Your task to perform on an android device: change your default location settings in chrome Image 0: 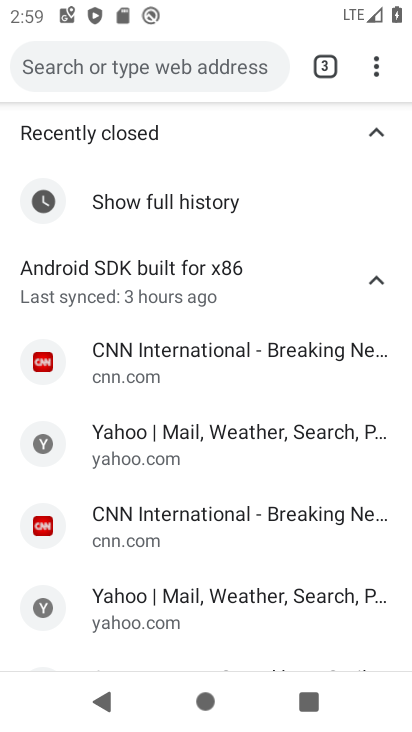
Step 0: click (375, 61)
Your task to perform on an android device: change your default location settings in chrome Image 1: 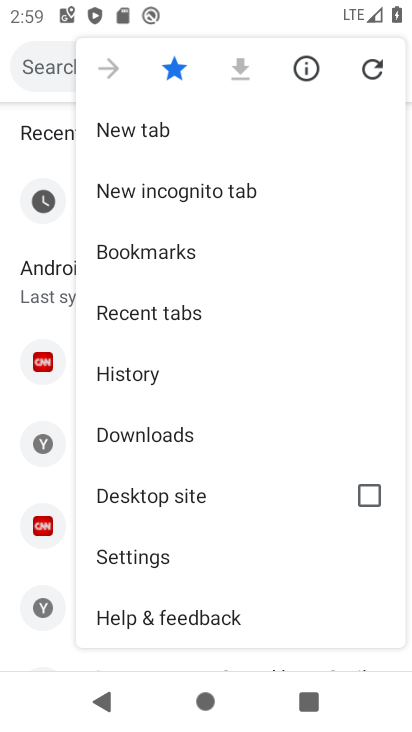
Step 1: click (178, 556)
Your task to perform on an android device: change your default location settings in chrome Image 2: 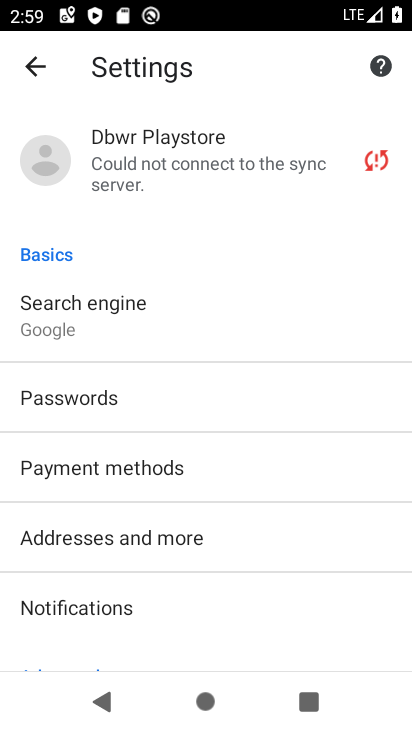
Step 2: drag from (197, 519) to (218, 237)
Your task to perform on an android device: change your default location settings in chrome Image 3: 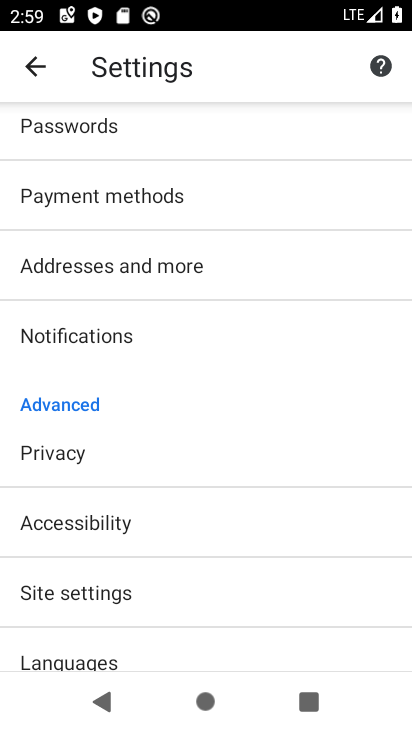
Step 3: click (136, 584)
Your task to perform on an android device: change your default location settings in chrome Image 4: 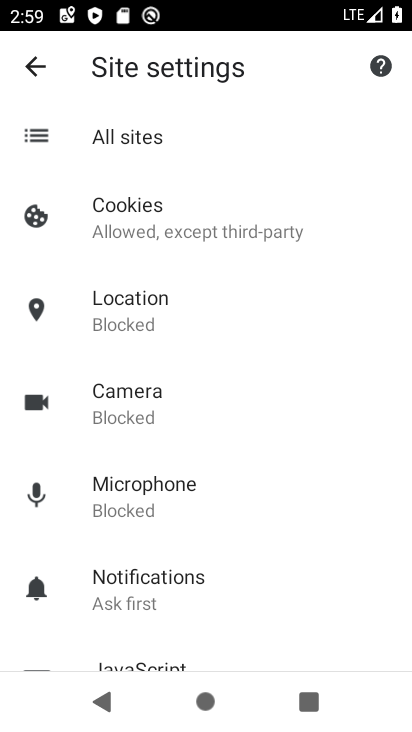
Step 4: click (183, 303)
Your task to perform on an android device: change your default location settings in chrome Image 5: 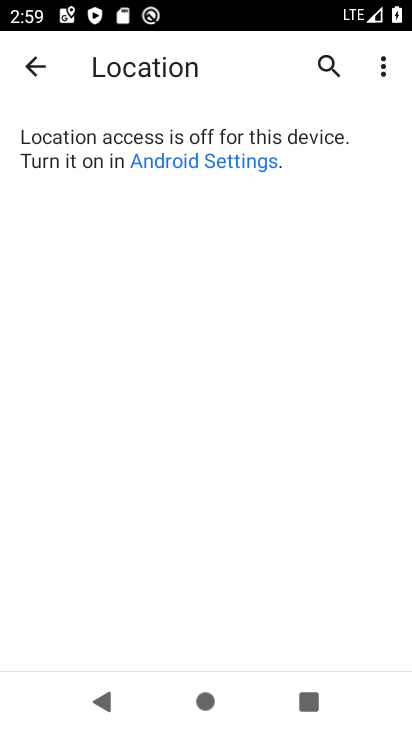
Step 5: click (255, 150)
Your task to perform on an android device: change your default location settings in chrome Image 6: 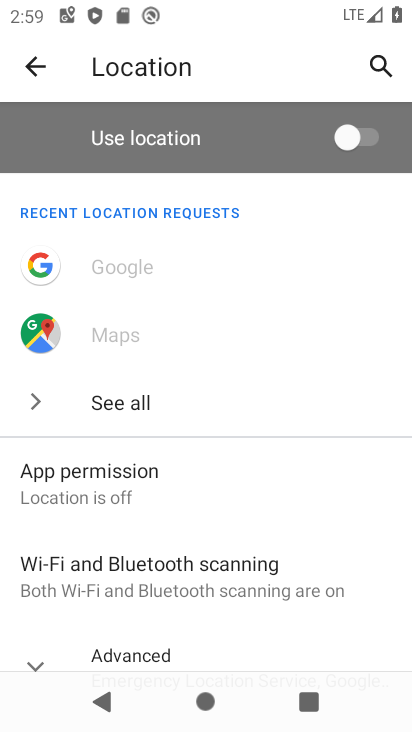
Step 6: click (358, 133)
Your task to perform on an android device: change your default location settings in chrome Image 7: 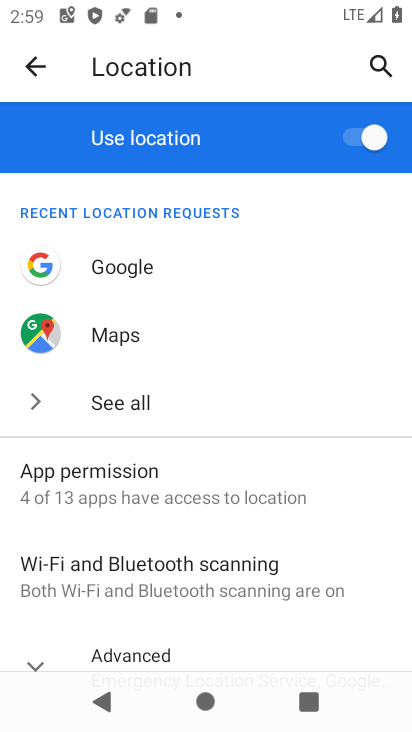
Step 7: click (30, 61)
Your task to perform on an android device: change your default location settings in chrome Image 8: 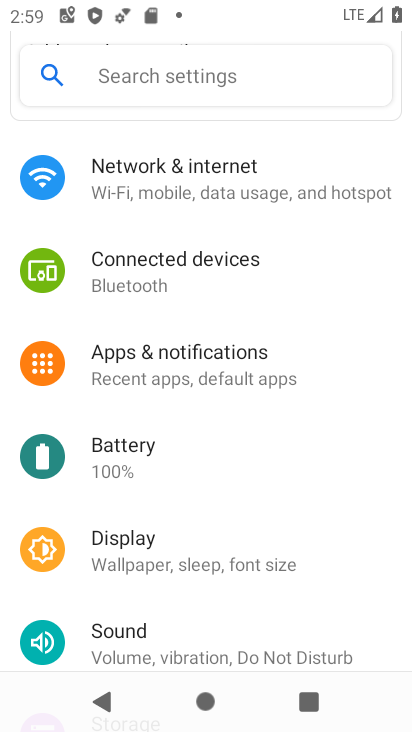
Step 8: press home button
Your task to perform on an android device: change your default location settings in chrome Image 9: 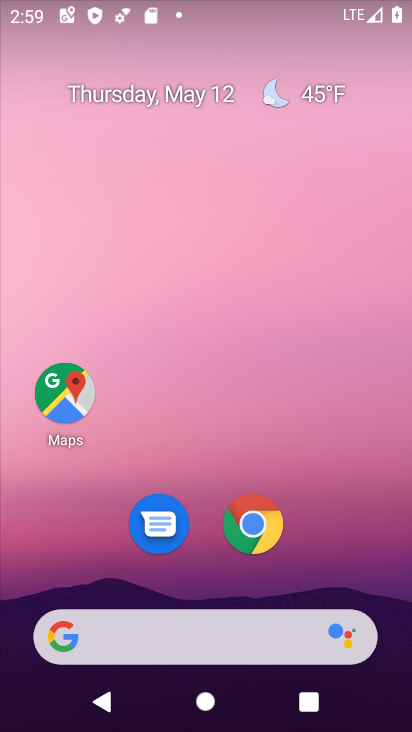
Step 9: click (266, 529)
Your task to perform on an android device: change your default location settings in chrome Image 10: 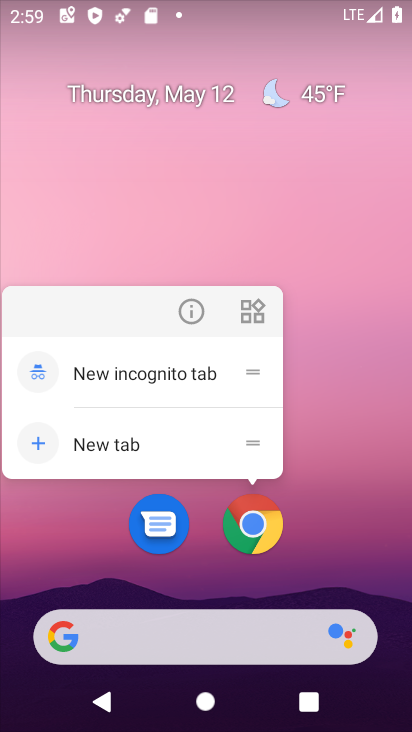
Step 10: click (266, 530)
Your task to perform on an android device: change your default location settings in chrome Image 11: 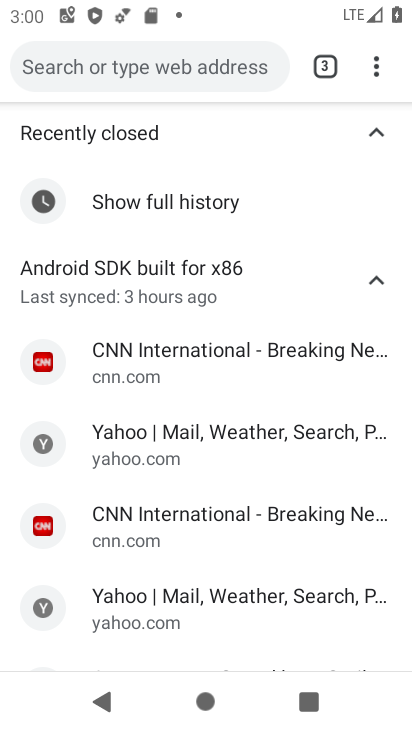
Step 11: click (372, 67)
Your task to perform on an android device: change your default location settings in chrome Image 12: 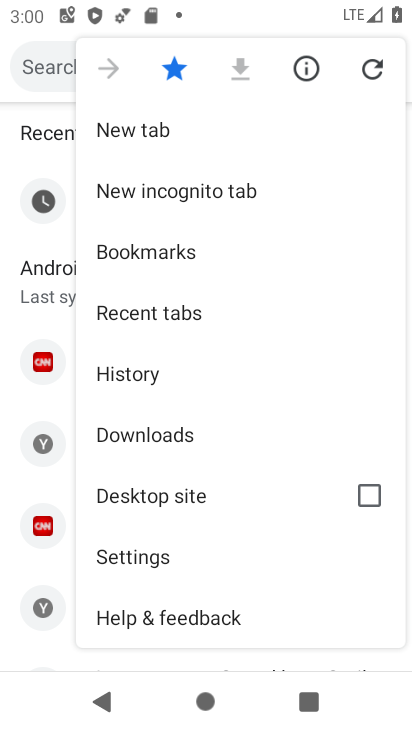
Step 12: click (182, 546)
Your task to perform on an android device: change your default location settings in chrome Image 13: 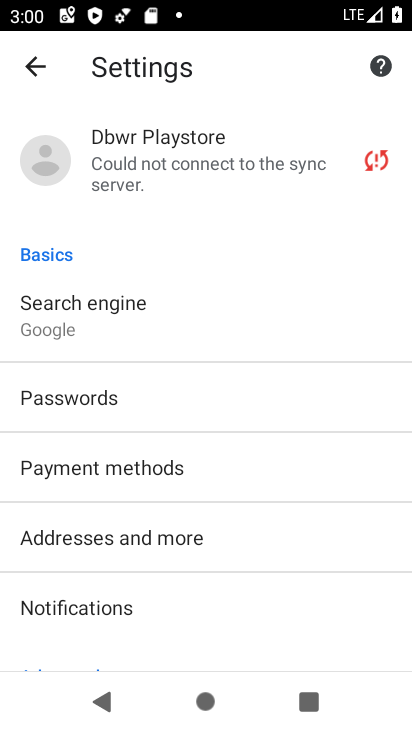
Step 13: drag from (249, 538) to (278, 234)
Your task to perform on an android device: change your default location settings in chrome Image 14: 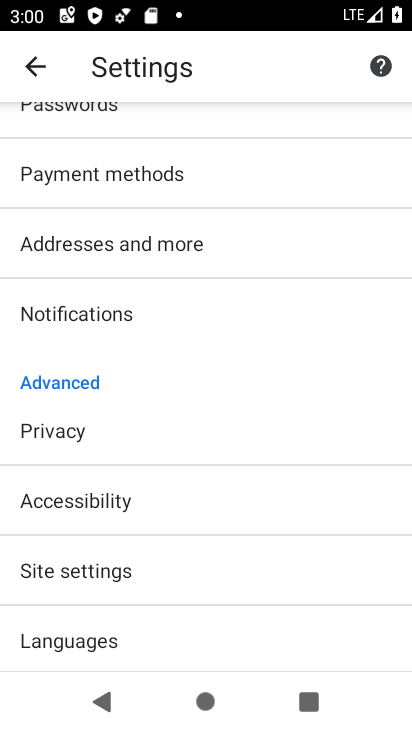
Step 14: click (173, 567)
Your task to perform on an android device: change your default location settings in chrome Image 15: 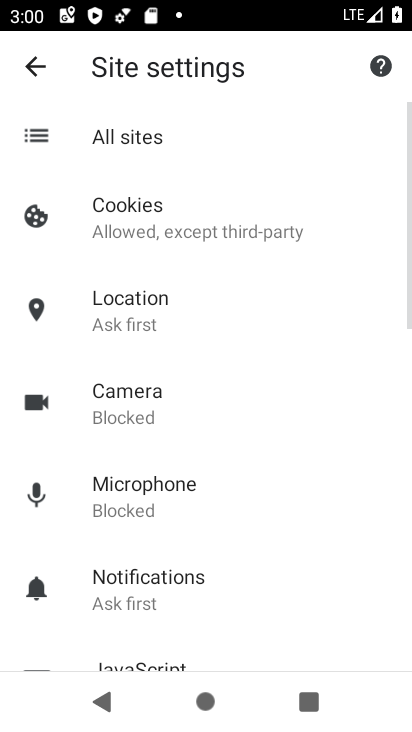
Step 15: click (191, 303)
Your task to perform on an android device: change your default location settings in chrome Image 16: 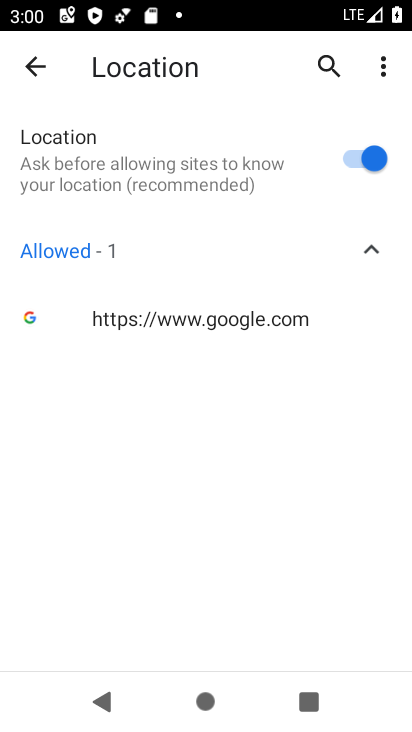
Step 16: click (359, 149)
Your task to perform on an android device: change your default location settings in chrome Image 17: 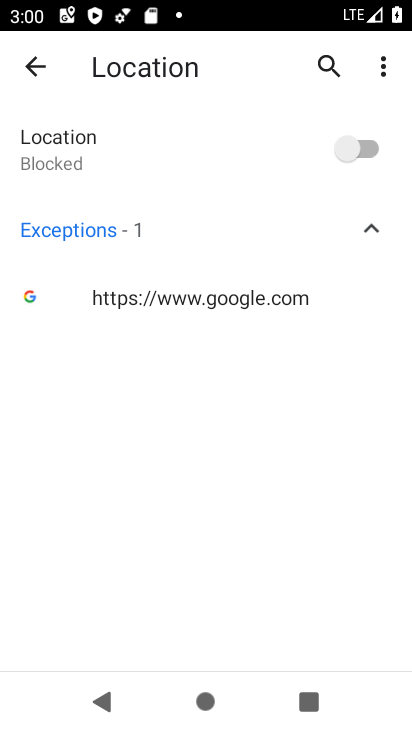
Step 17: click (359, 151)
Your task to perform on an android device: change your default location settings in chrome Image 18: 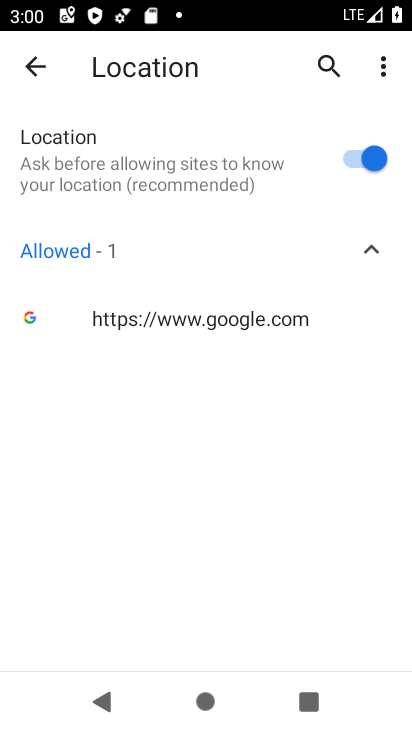
Step 18: task complete